Your task to perform on an android device: open app "Lyft - Rideshare, Bikes, Scooters & Transit" (install if not already installed), go to login, and select forgot password Image 0: 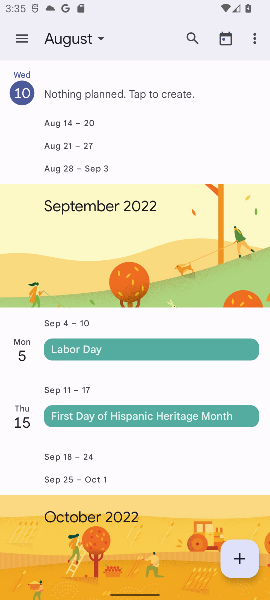
Step 0: press home button
Your task to perform on an android device: open app "Lyft - Rideshare, Bikes, Scooters & Transit" (install if not already installed), go to login, and select forgot password Image 1: 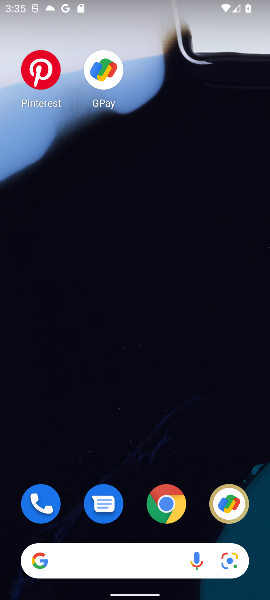
Step 1: drag from (195, 472) to (199, 94)
Your task to perform on an android device: open app "Lyft - Rideshare, Bikes, Scooters & Transit" (install if not already installed), go to login, and select forgot password Image 2: 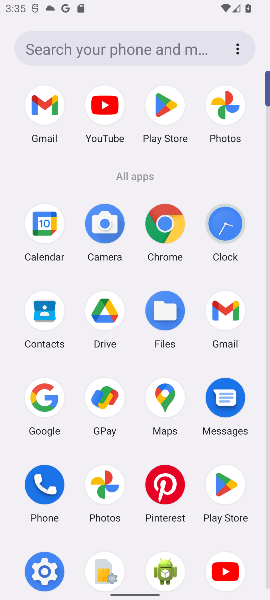
Step 2: click (166, 112)
Your task to perform on an android device: open app "Lyft - Rideshare, Bikes, Scooters & Transit" (install if not already installed), go to login, and select forgot password Image 3: 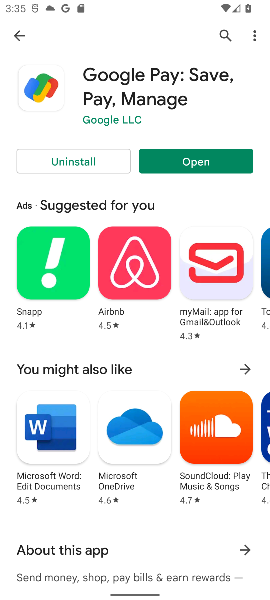
Step 3: click (221, 35)
Your task to perform on an android device: open app "Lyft - Rideshare, Bikes, Scooters & Transit" (install if not already installed), go to login, and select forgot password Image 4: 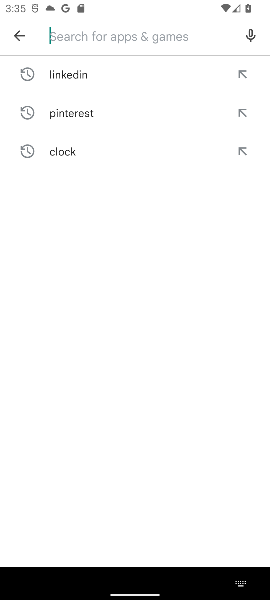
Step 4: type "Lyft - Rideshare, Bikes, Scooters & Transit"
Your task to perform on an android device: open app "Lyft - Rideshare, Bikes, Scooters & Transit" (install if not already installed), go to login, and select forgot password Image 5: 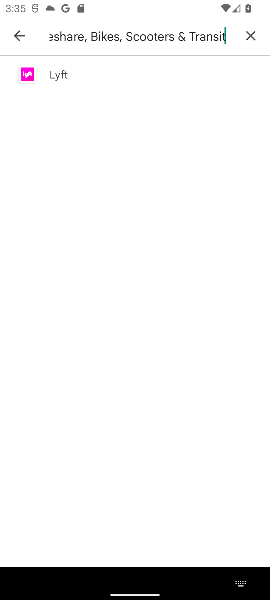
Step 5: click (63, 63)
Your task to perform on an android device: open app "Lyft - Rideshare, Bikes, Scooters & Transit" (install if not already installed), go to login, and select forgot password Image 6: 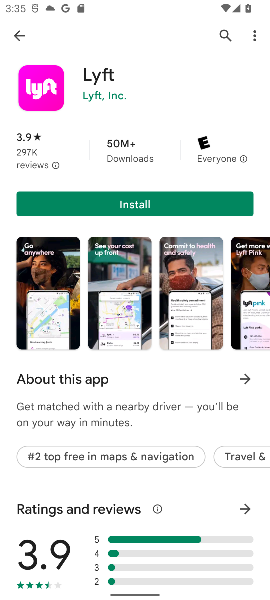
Step 6: click (159, 212)
Your task to perform on an android device: open app "Lyft - Rideshare, Bikes, Scooters & Transit" (install if not already installed), go to login, and select forgot password Image 7: 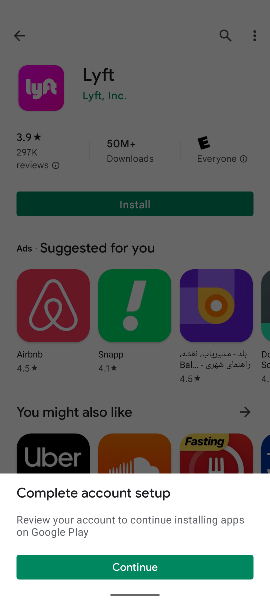
Step 7: click (149, 572)
Your task to perform on an android device: open app "Lyft - Rideshare, Bikes, Scooters & Transit" (install if not already installed), go to login, and select forgot password Image 8: 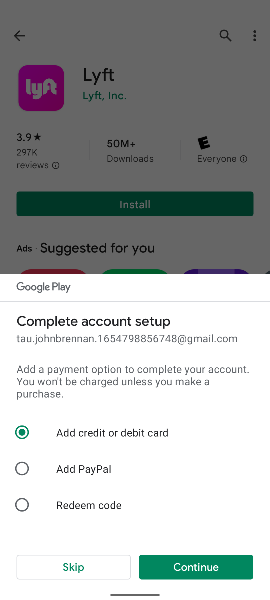
Step 8: click (85, 568)
Your task to perform on an android device: open app "Lyft - Rideshare, Bikes, Scooters & Transit" (install if not already installed), go to login, and select forgot password Image 9: 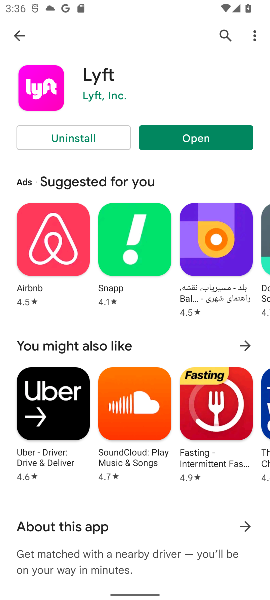
Step 9: click (214, 130)
Your task to perform on an android device: open app "Lyft - Rideshare, Bikes, Scooters & Transit" (install if not already installed), go to login, and select forgot password Image 10: 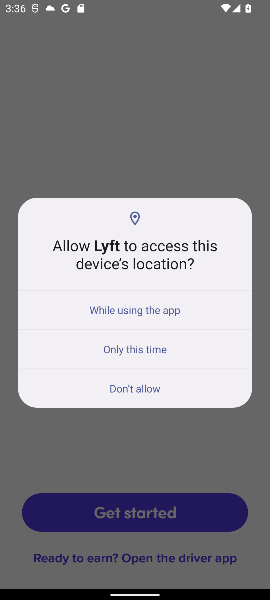
Step 10: click (144, 316)
Your task to perform on an android device: open app "Lyft - Rideshare, Bikes, Scooters & Transit" (install if not already installed), go to login, and select forgot password Image 11: 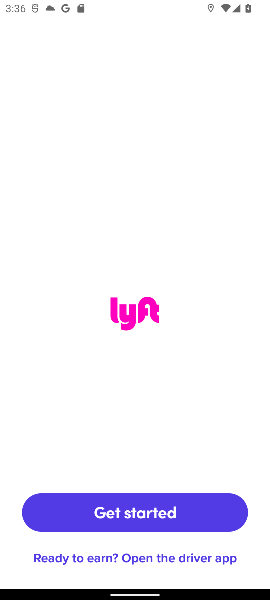
Step 11: click (138, 507)
Your task to perform on an android device: open app "Lyft - Rideshare, Bikes, Scooters & Transit" (install if not already installed), go to login, and select forgot password Image 12: 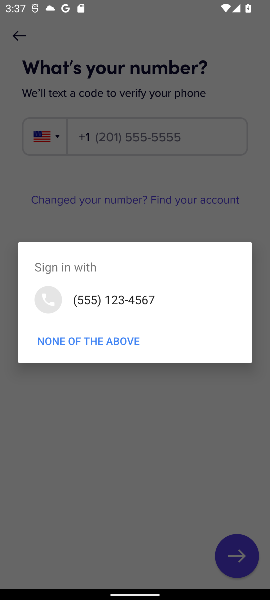
Step 12: click (179, 401)
Your task to perform on an android device: open app "Lyft - Rideshare, Bikes, Scooters & Transit" (install if not already installed), go to login, and select forgot password Image 13: 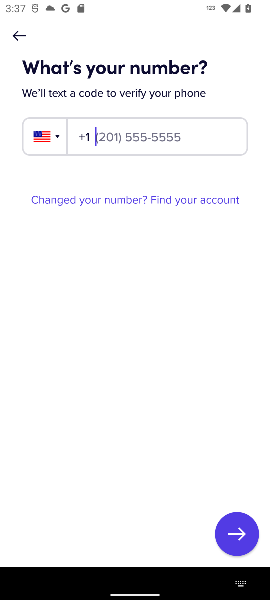
Step 13: task complete